Your task to perform on an android device: open app "Truecaller" Image 0: 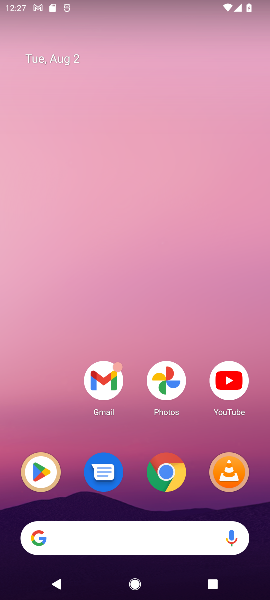
Step 0: click (40, 462)
Your task to perform on an android device: open app "Truecaller" Image 1: 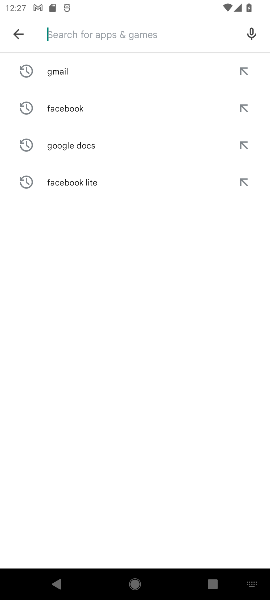
Step 1: type "truecaller"
Your task to perform on an android device: open app "Truecaller" Image 2: 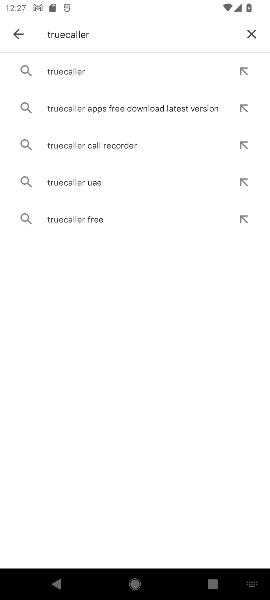
Step 2: click (79, 74)
Your task to perform on an android device: open app "Truecaller" Image 3: 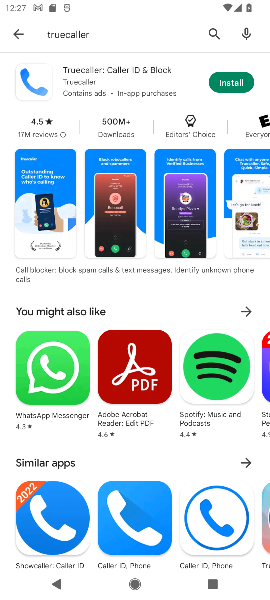
Step 3: click (79, 74)
Your task to perform on an android device: open app "Truecaller" Image 4: 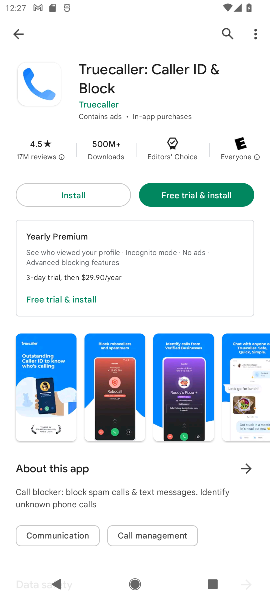
Step 4: task complete